Your task to perform on an android device: Open settings on Google Maps Image 0: 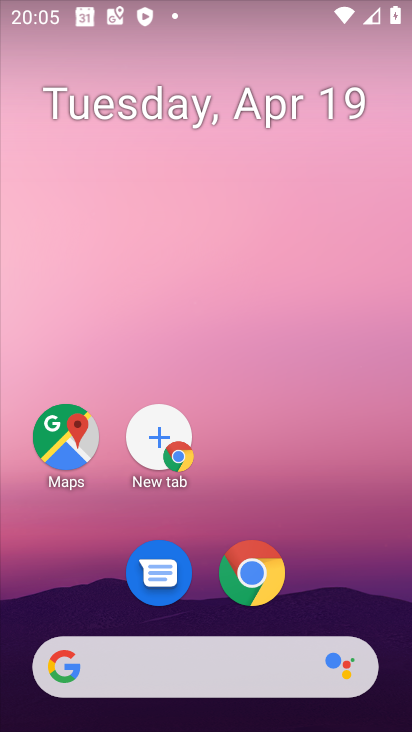
Step 0: click (375, 470)
Your task to perform on an android device: Open settings on Google Maps Image 1: 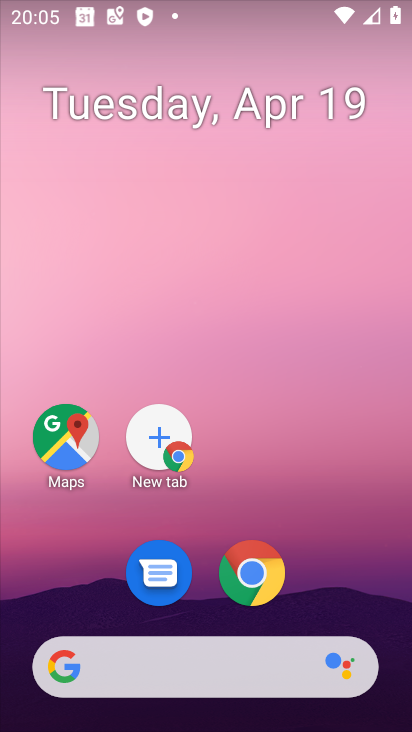
Step 1: click (69, 424)
Your task to perform on an android device: Open settings on Google Maps Image 2: 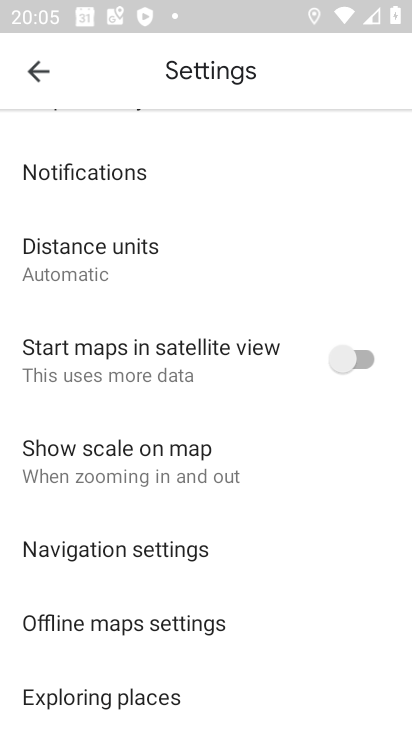
Step 2: press home button
Your task to perform on an android device: Open settings on Google Maps Image 3: 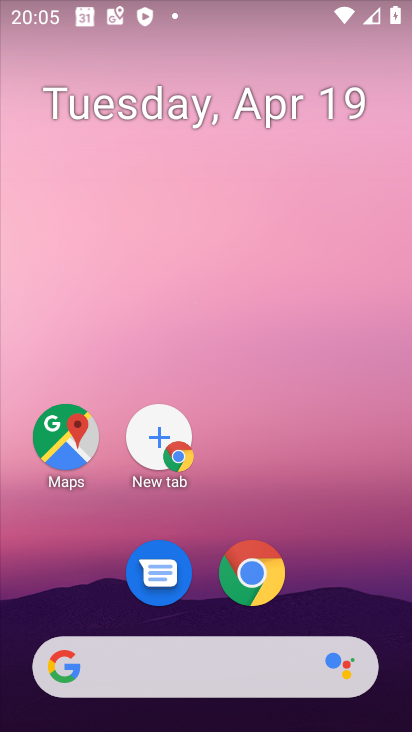
Step 3: drag from (350, 383) to (327, 47)
Your task to perform on an android device: Open settings on Google Maps Image 4: 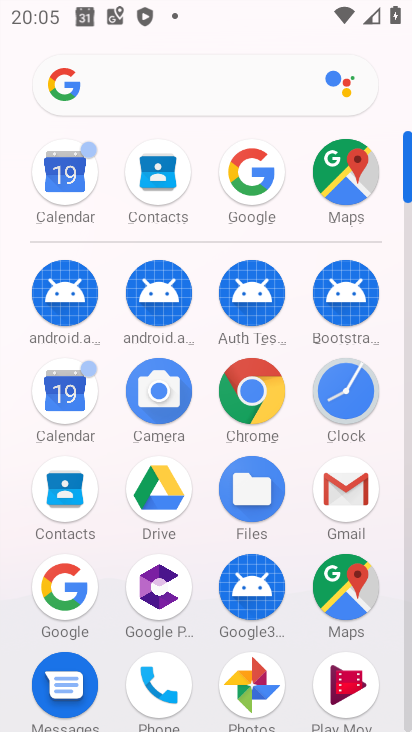
Step 4: click (338, 174)
Your task to perform on an android device: Open settings on Google Maps Image 5: 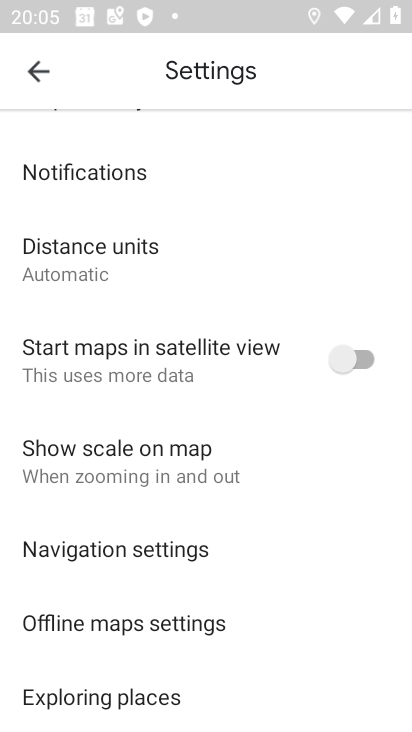
Step 5: task complete